Your task to perform on an android device: open app "Indeed Job Search" (install if not already installed) Image 0: 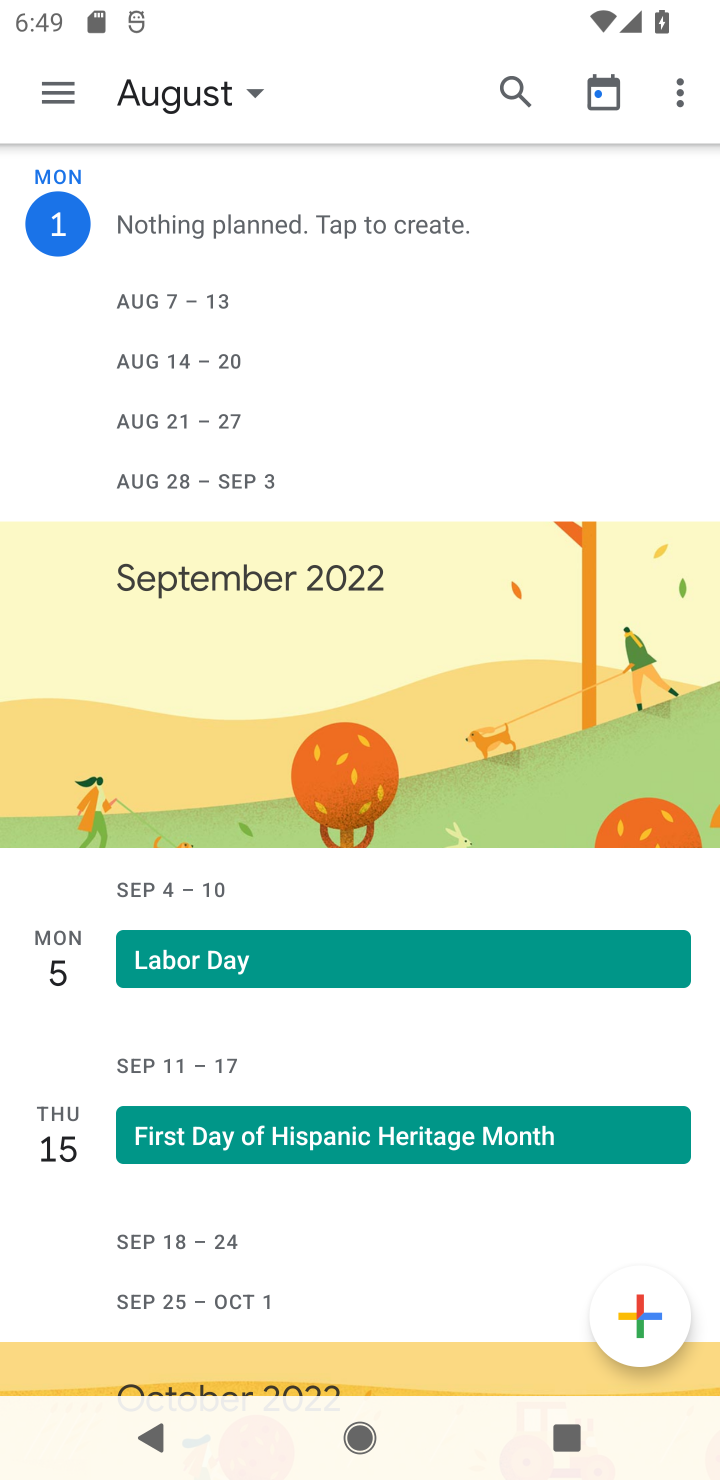
Step 0: press home button
Your task to perform on an android device: open app "Indeed Job Search" (install if not already installed) Image 1: 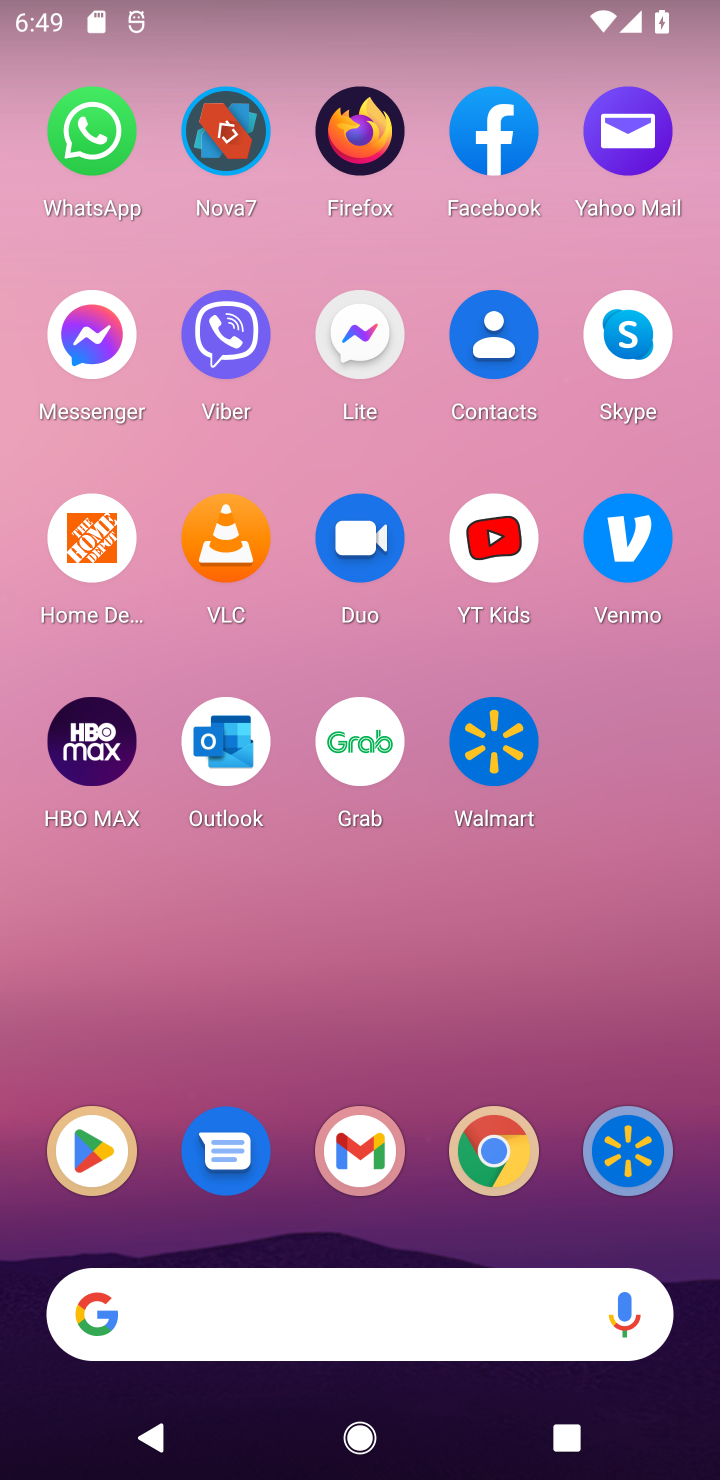
Step 1: click (103, 1168)
Your task to perform on an android device: open app "Indeed Job Search" (install if not already installed) Image 2: 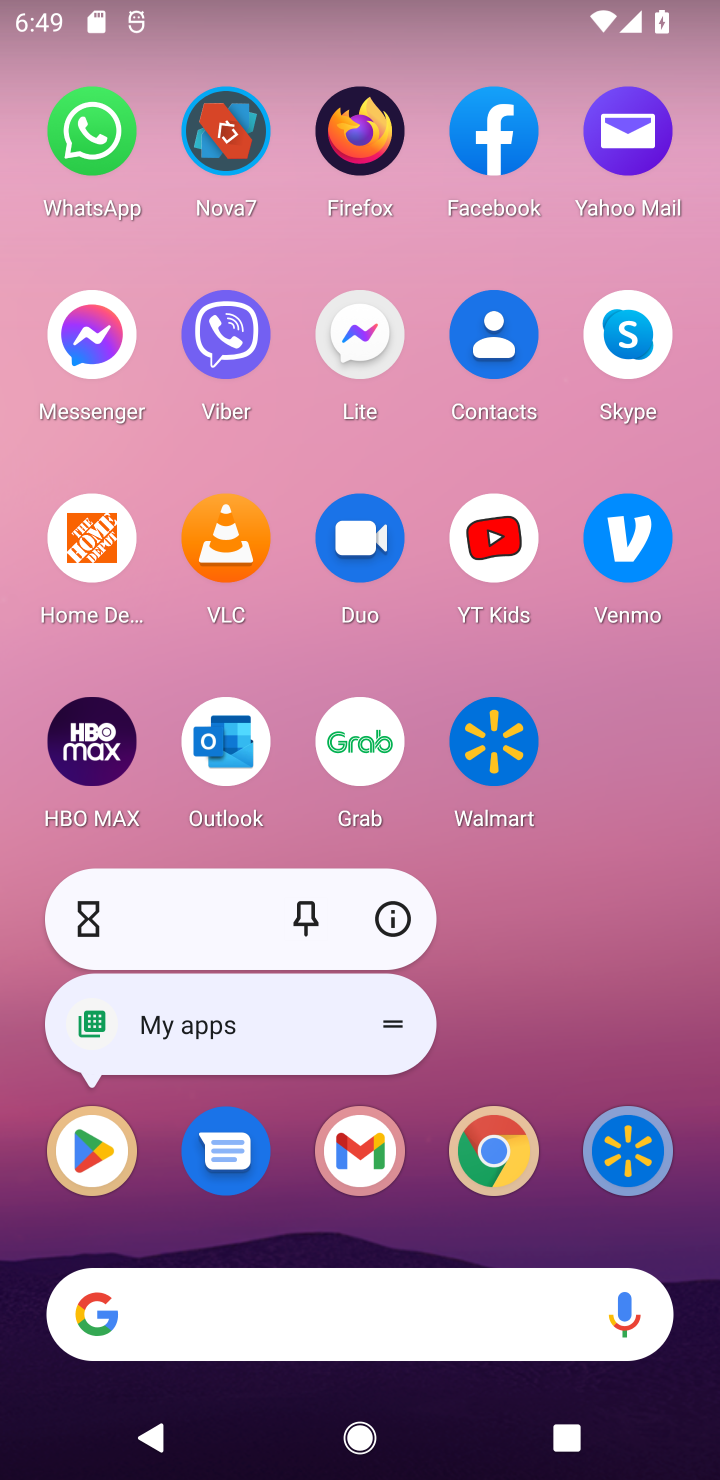
Step 2: click (87, 1151)
Your task to perform on an android device: open app "Indeed Job Search" (install if not already installed) Image 3: 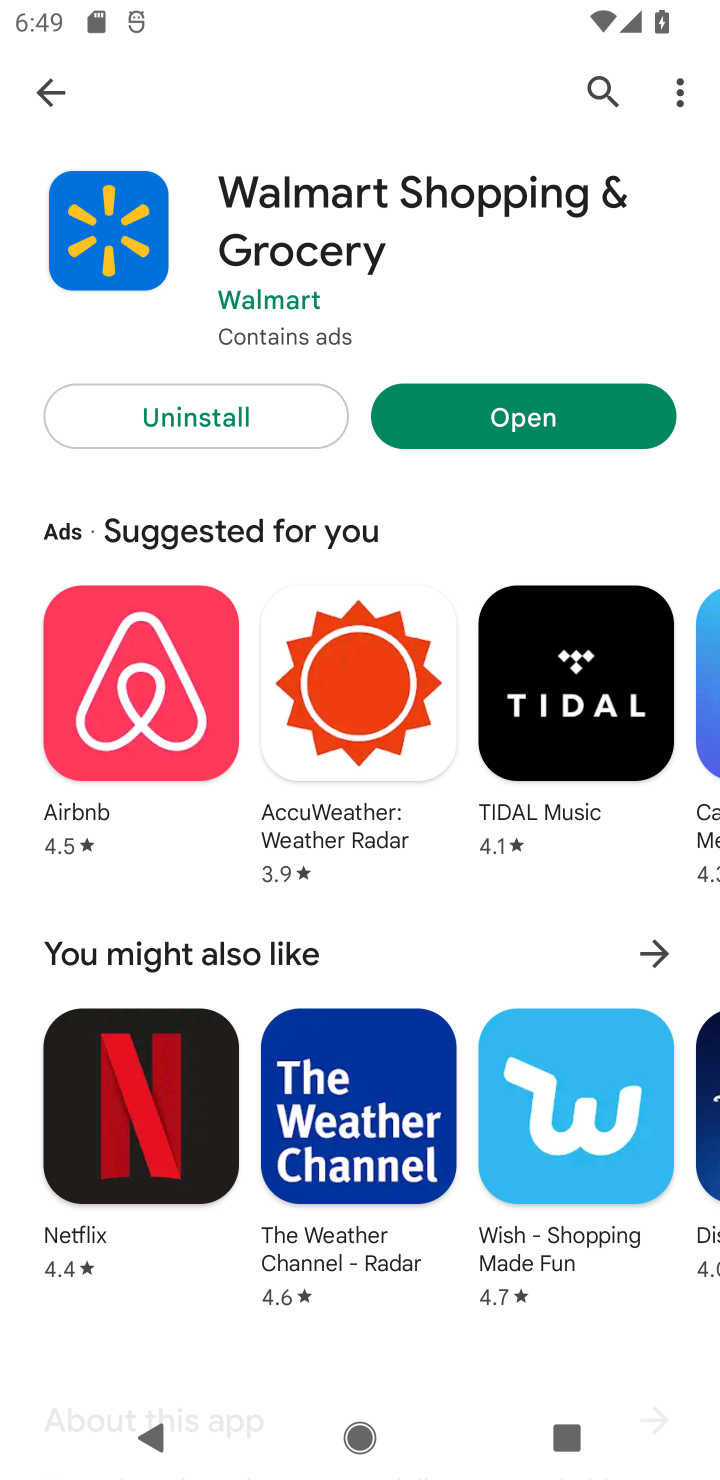
Step 3: click (587, 86)
Your task to perform on an android device: open app "Indeed Job Search" (install if not already installed) Image 4: 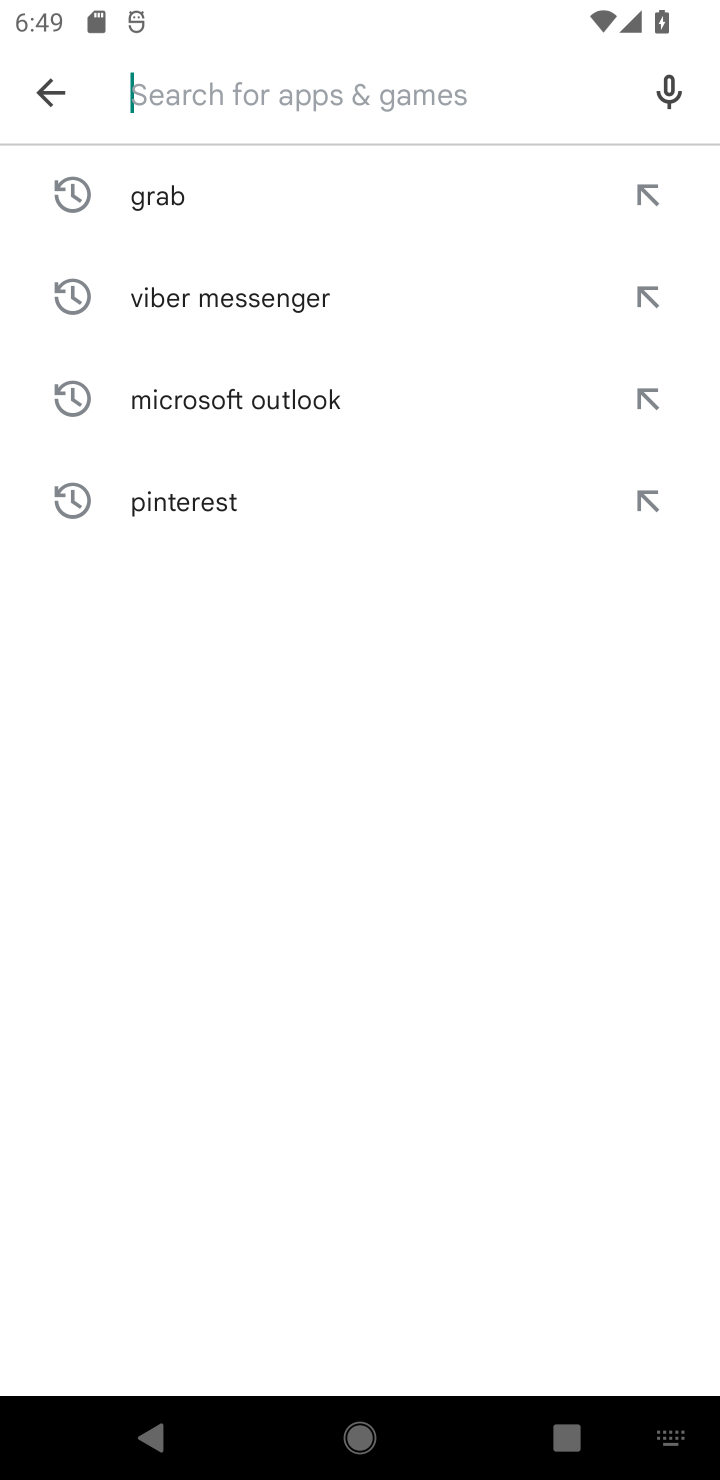
Step 4: type "Indeed Job Search"
Your task to perform on an android device: open app "Indeed Job Search" (install if not already installed) Image 5: 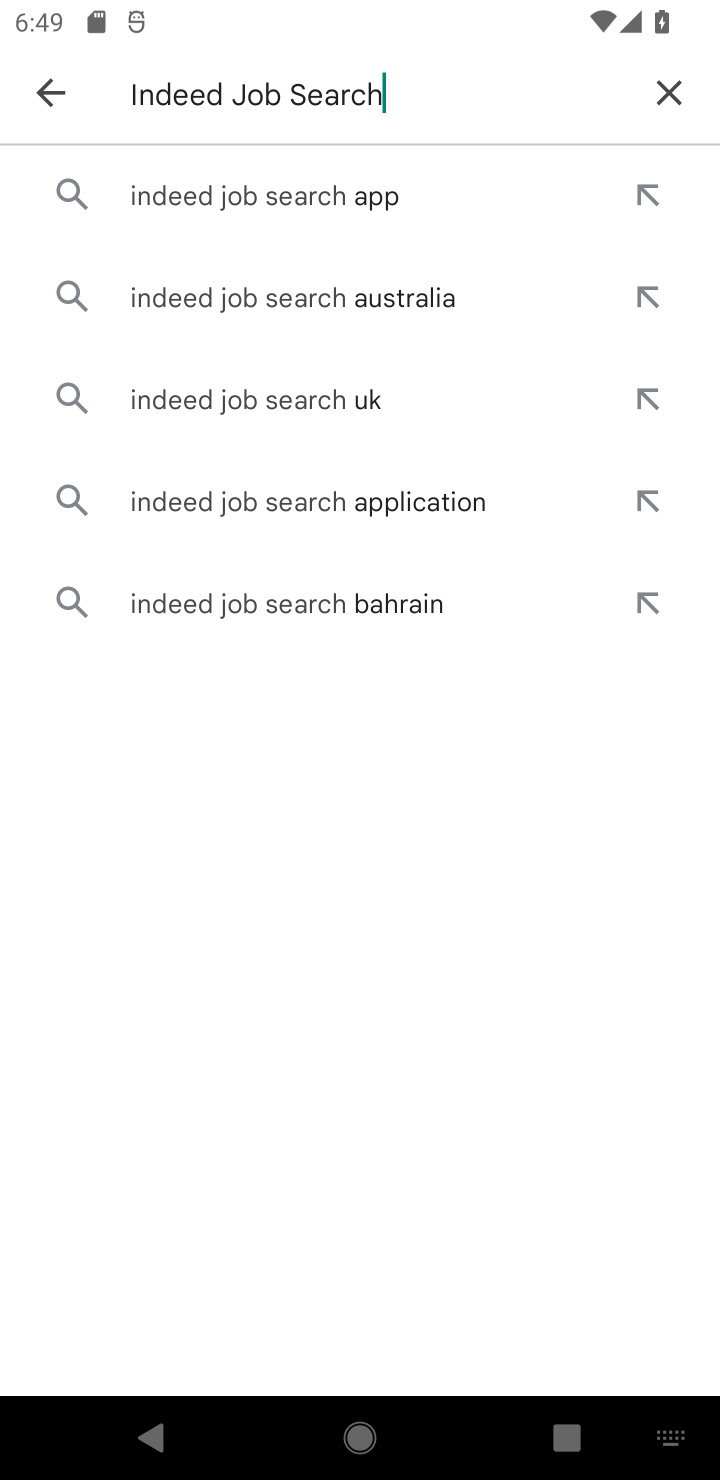
Step 5: click (241, 203)
Your task to perform on an android device: open app "Indeed Job Search" (install if not already installed) Image 6: 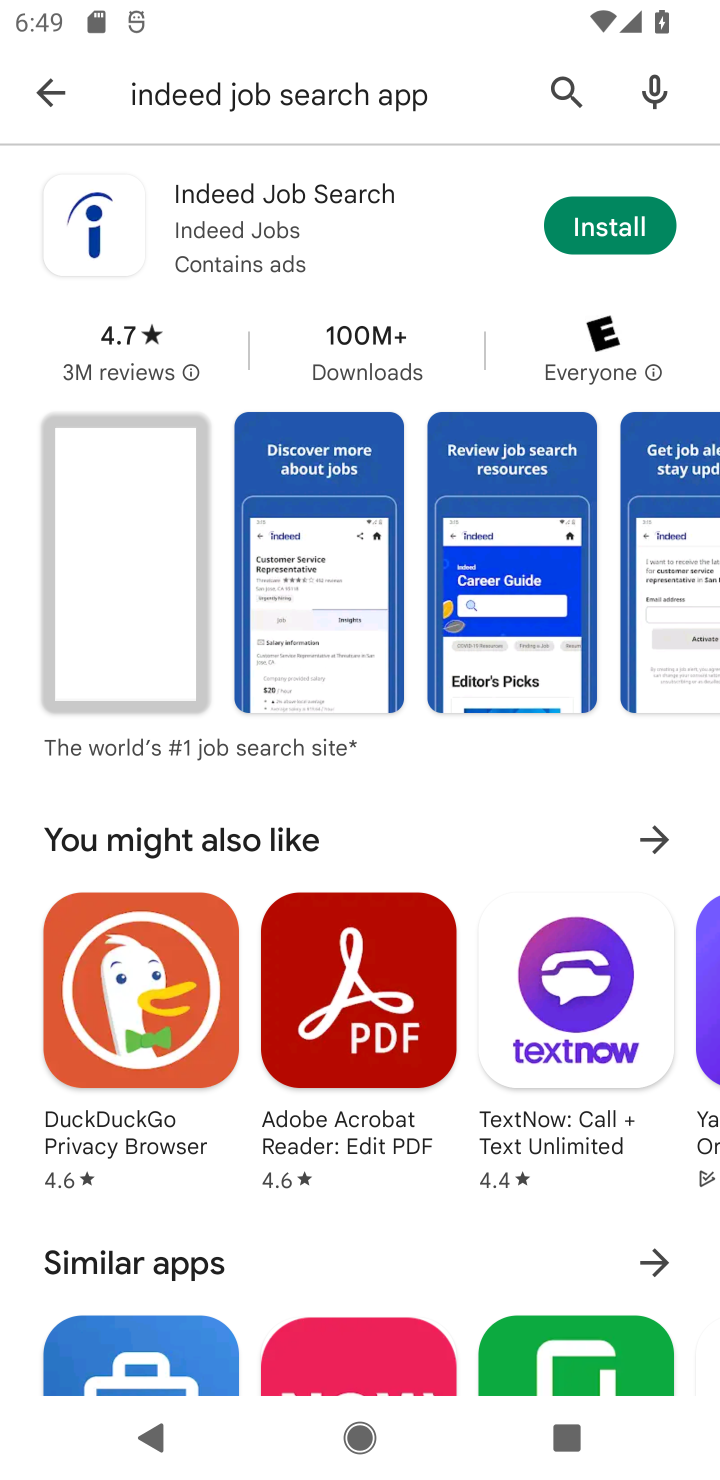
Step 6: click (627, 240)
Your task to perform on an android device: open app "Indeed Job Search" (install if not already installed) Image 7: 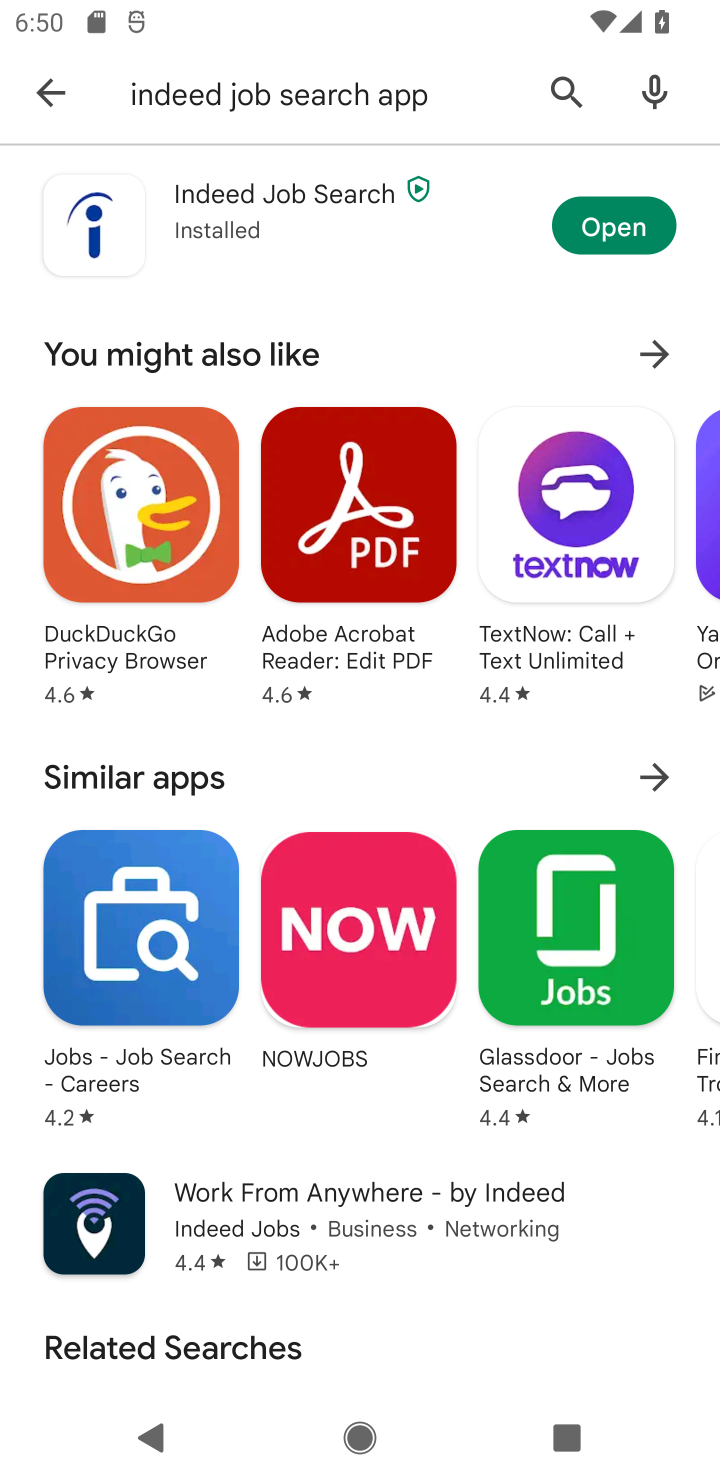
Step 7: click (627, 240)
Your task to perform on an android device: open app "Indeed Job Search" (install if not already installed) Image 8: 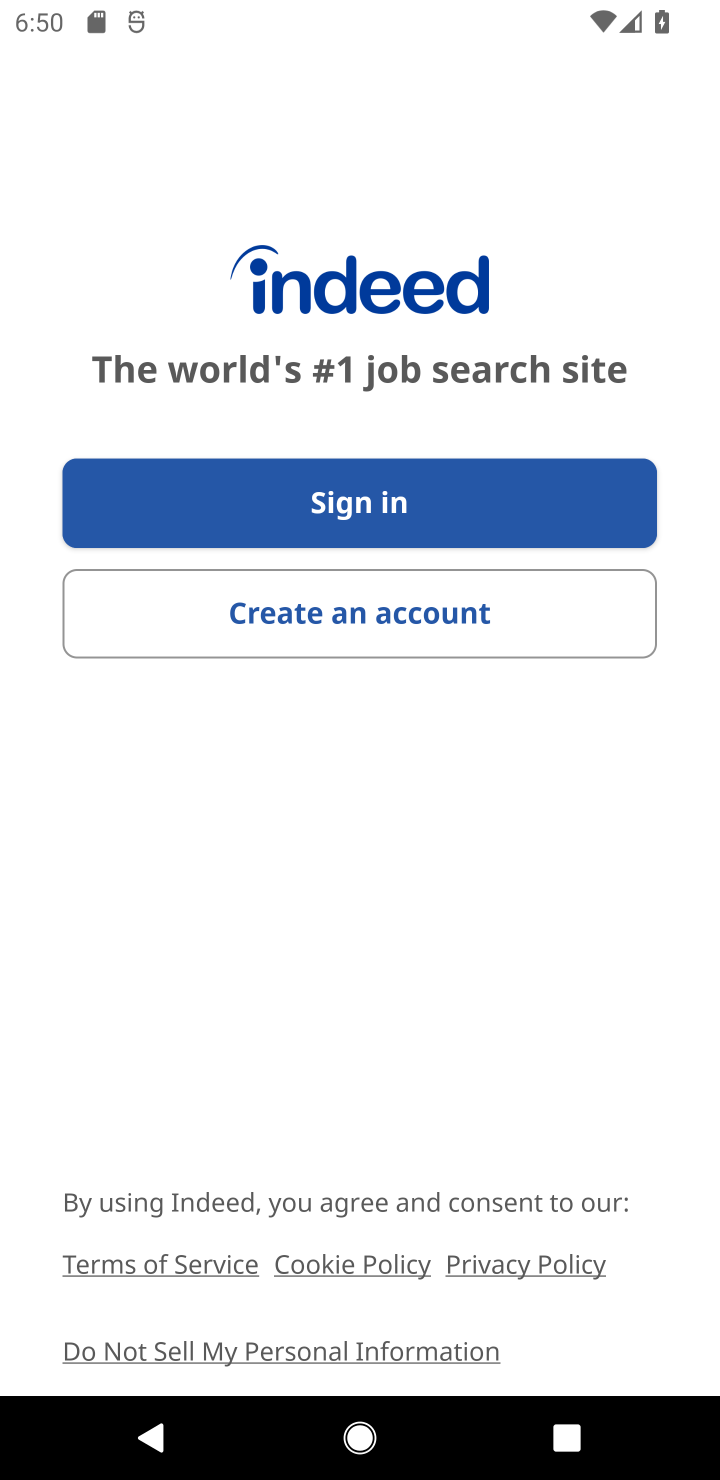
Step 8: task complete